Your task to perform on an android device: Open sound settings Image 0: 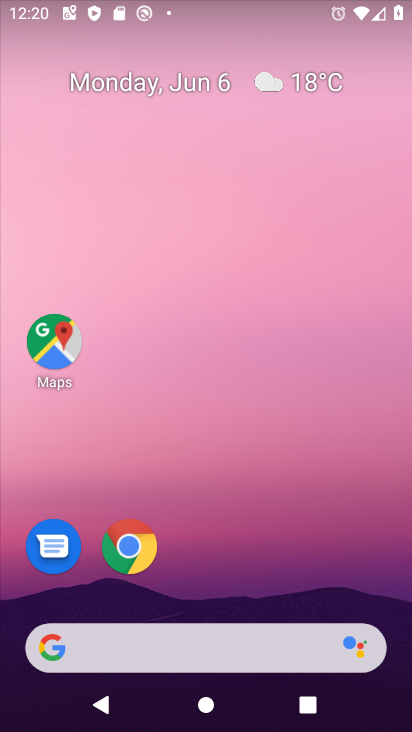
Step 0: drag from (172, 727) to (89, 115)
Your task to perform on an android device: Open sound settings Image 1: 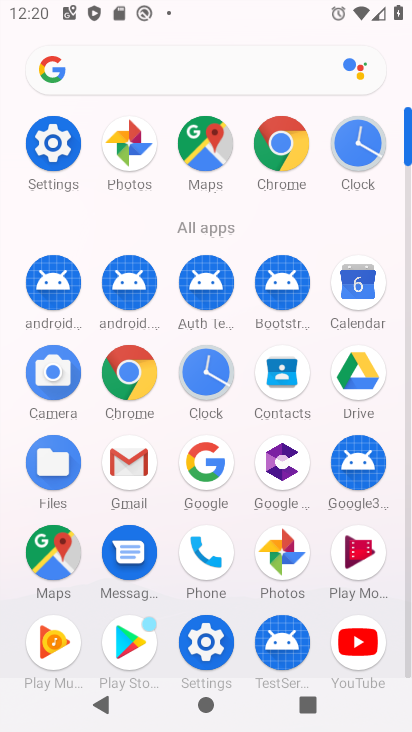
Step 1: click (206, 647)
Your task to perform on an android device: Open sound settings Image 2: 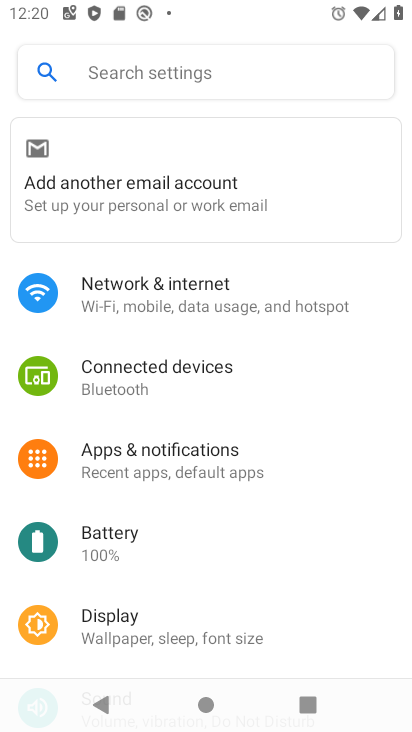
Step 2: drag from (177, 600) to (180, 367)
Your task to perform on an android device: Open sound settings Image 3: 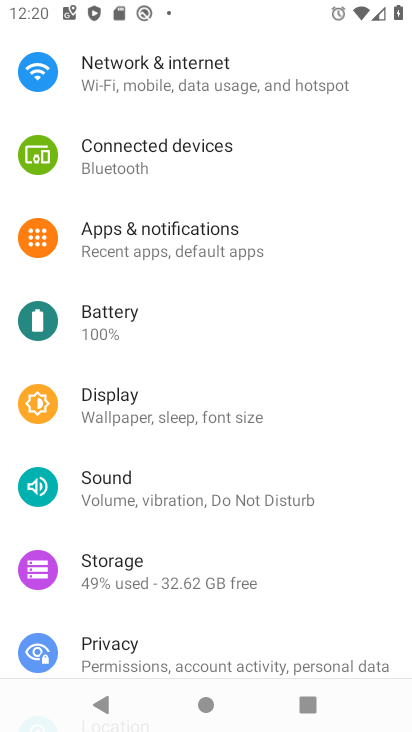
Step 3: click (43, 495)
Your task to perform on an android device: Open sound settings Image 4: 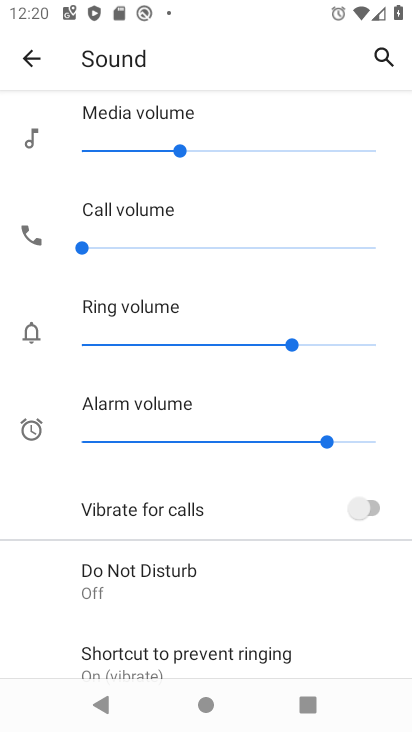
Step 4: task complete